Your task to perform on an android device: What's the weather going to be this weekend? Image 0: 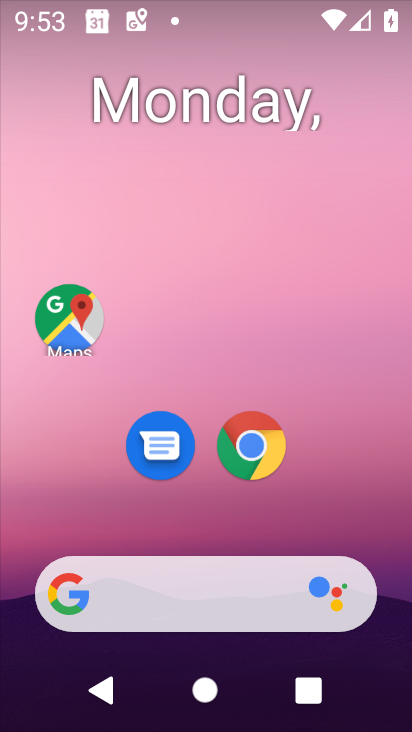
Step 0: click (192, 587)
Your task to perform on an android device: What's the weather going to be this weekend? Image 1: 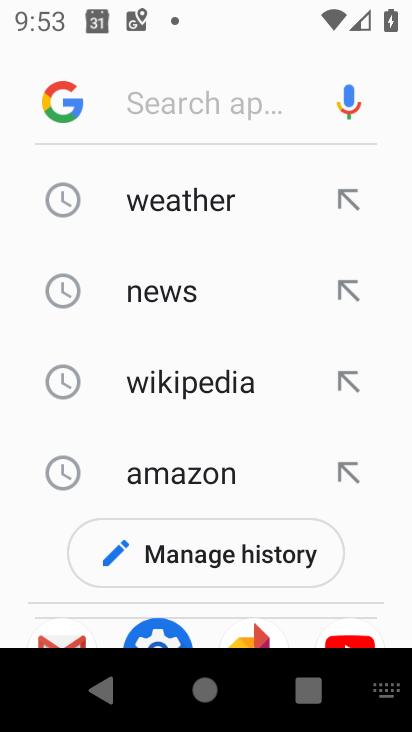
Step 1: type "What's the weather going to be this weekend?"
Your task to perform on an android device: What's the weather going to be this weekend? Image 2: 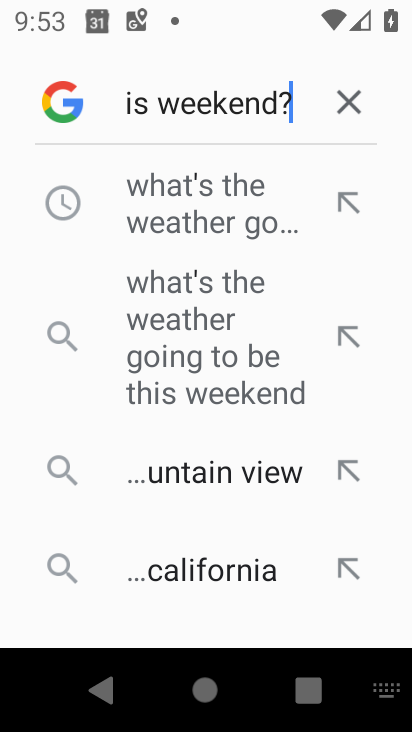
Step 2: click (218, 211)
Your task to perform on an android device: What's the weather going to be this weekend? Image 3: 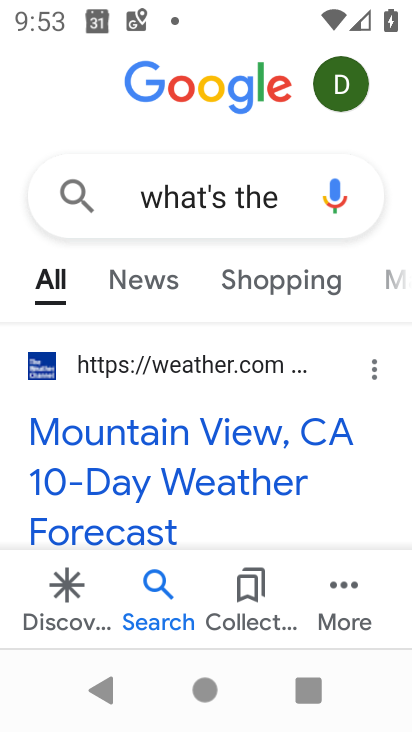
Step 3: click (217, 358)
Your task to perform on an android device: What's the weather going to be this weekend? Image 4: 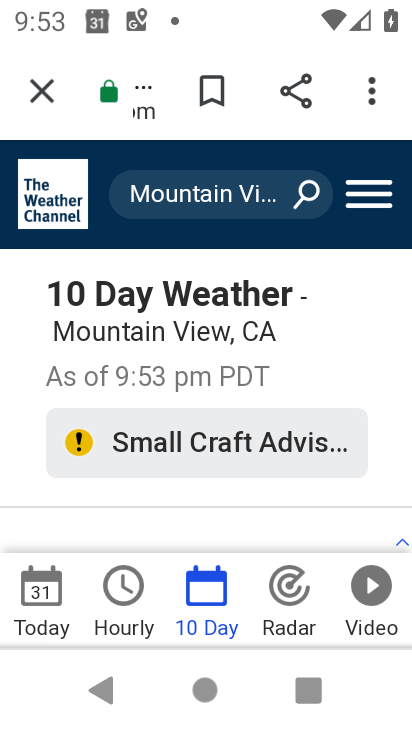
Step 4: task complete